Your task to perform on an android device: create a new album in the google photos Image 0: 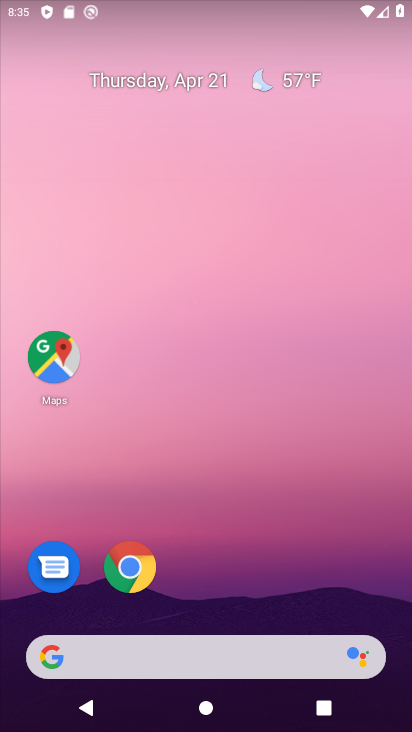
Step 0: drag from (192, 614) to (149, 52)
Your task to perform on an android device: create a new album in the google photos Image 1: 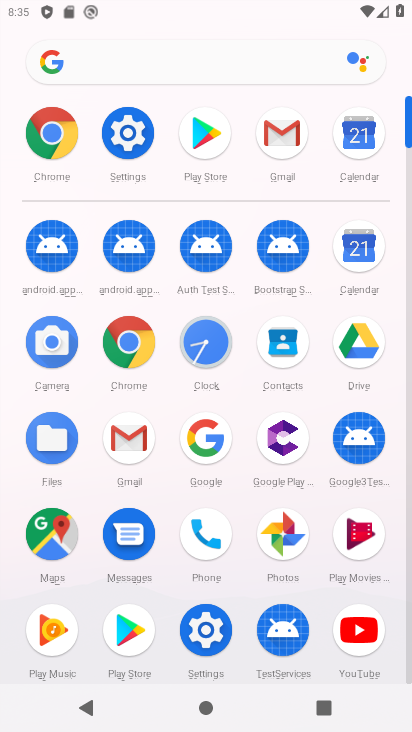
Step 1: click (291, 557)
Your task to perform on an android device: create a new album in the google photos Image 2: 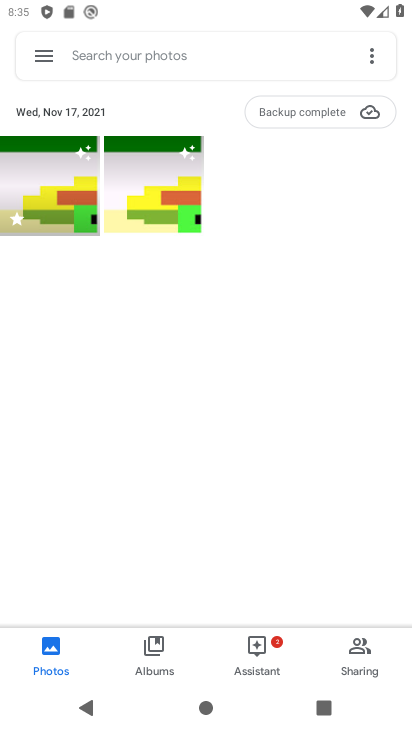
Step 2: click (90, 204)
Your task to perform on an android device: create a new album in the google photos Image 3: 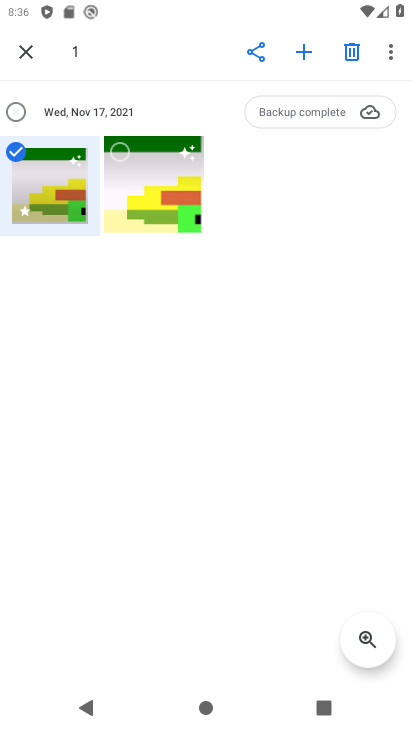
Step 3: click (305, 43)
Your task to perform on an android device: create a new album in the google photos Image 4: 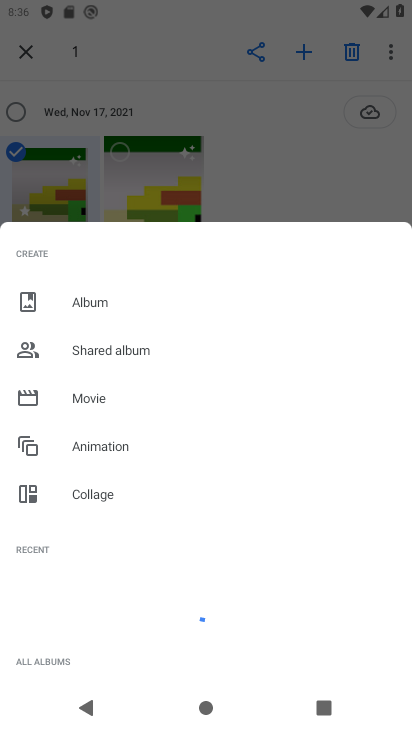
Step 4: click (122, 289)
Your task to perform on an android device: create a new album in the google photos Image 5: 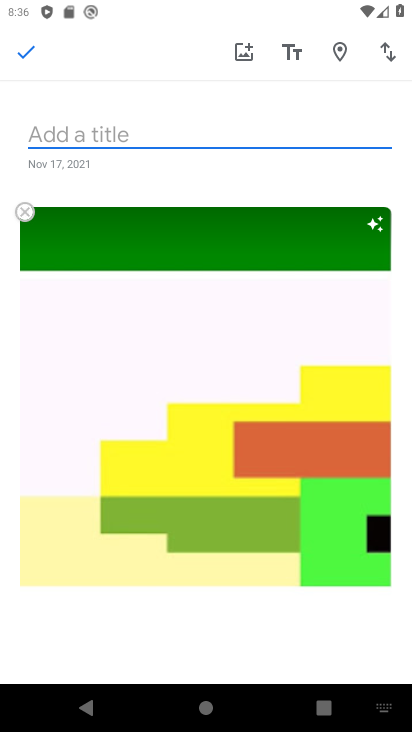
Step 5: type "g"
Your task to perform on an android device: create a new album in the google photos Image 6: 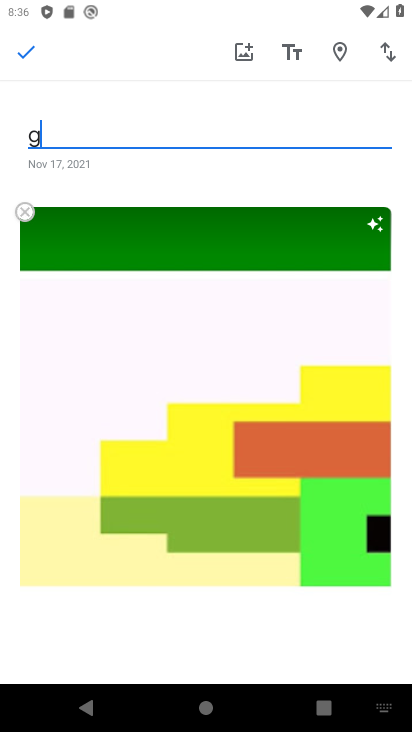
Step 6: type ""
Your task to perform on an android device: create a new album in the google photos Image 7: 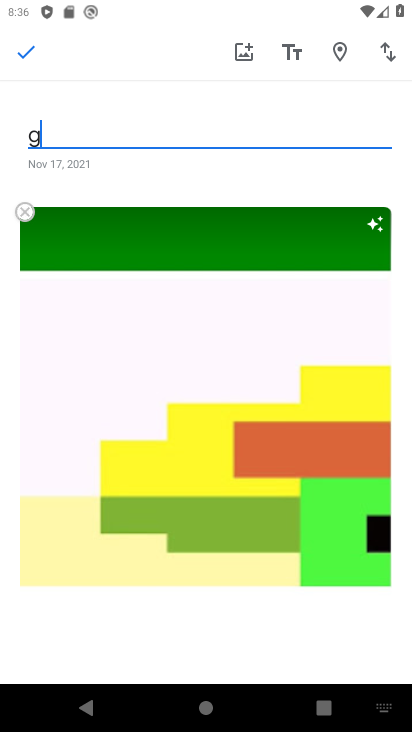
Step 7: click (30, 45)
Your task to perform on an android device: create a new album in the google photos Image 8: 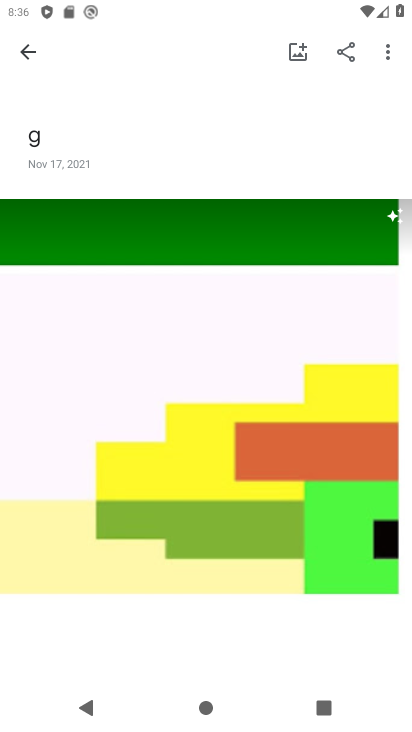
Step 8: task complete